Your task to perform on an android device: turn notification dots on Image 0: 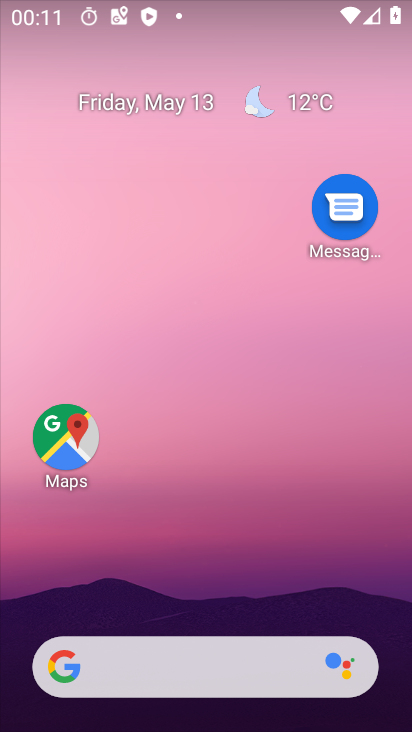
Step 0: drag from (302, 532) to (320, 4)
Your task to perform on an android device: turn notification dots on Image 1: 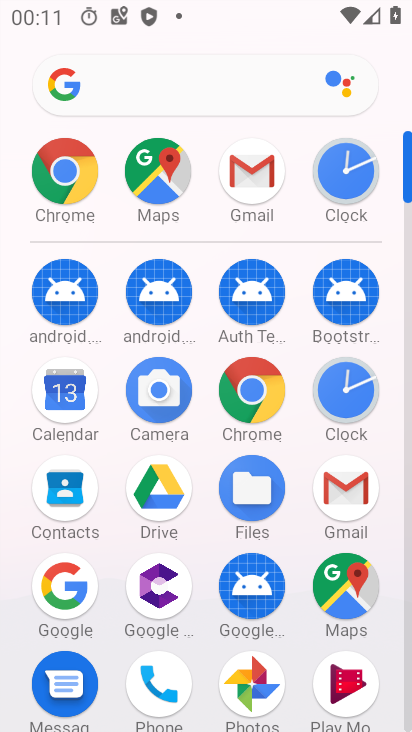
Step 1: click (410, 719)
Your task to perform on an android device: turn notification dots on Image 2: 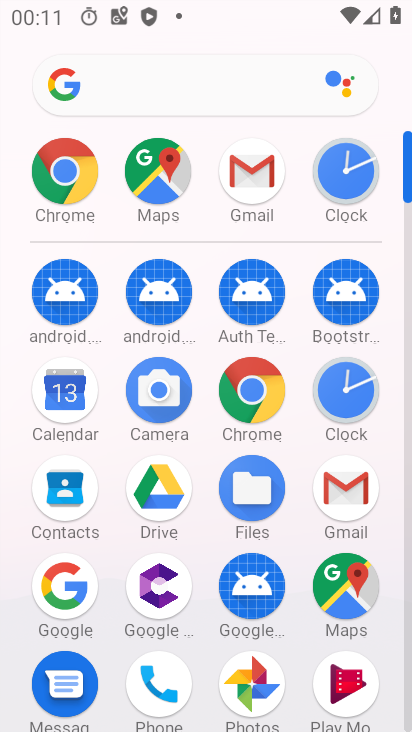
Step 2: click (410, 719)
Your task to perform on an android device: turn notification dots on Image 3: 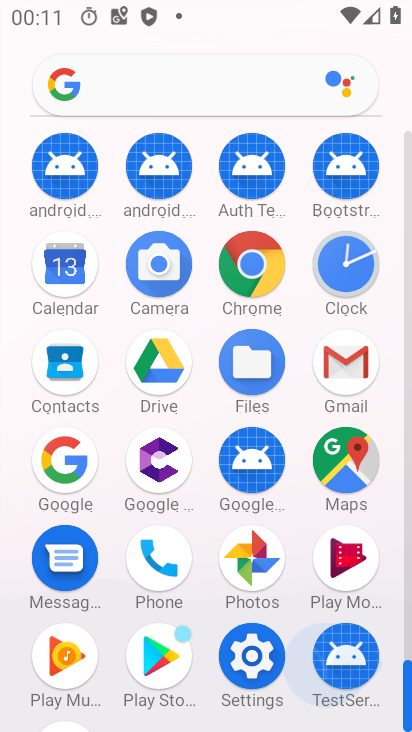
Step 3: click (410, 719)
Your task to perform on an android device: turn notification dots on Image 4: 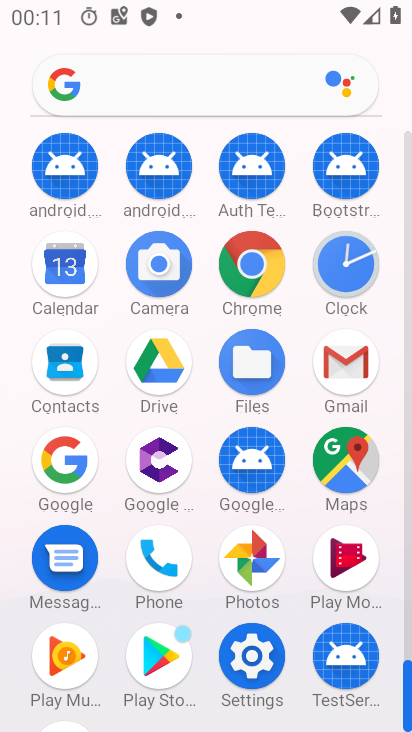
Step 4: click (410, 719)
Your task to perform on an android device: turn notification dots on Image 5: 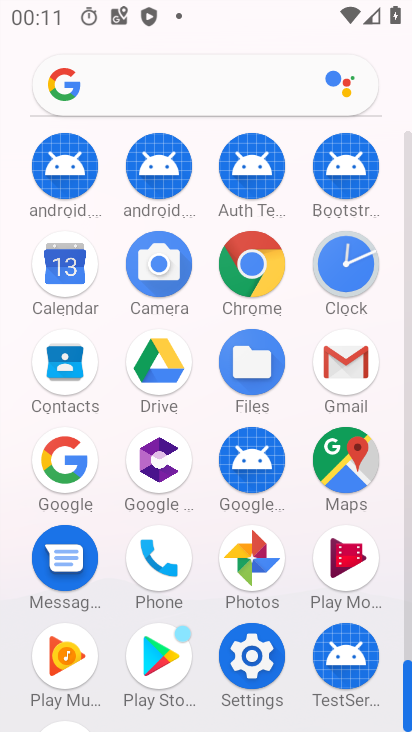
Step 5: click (248, 667)
Your task to perform on an android device: turn notification dots on Image 6: 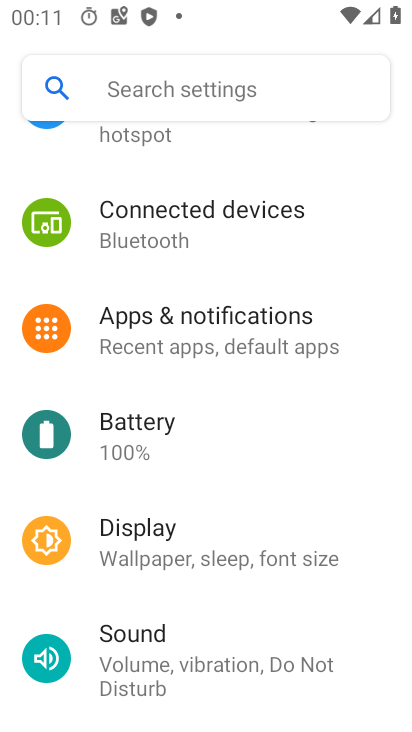
Step 6: click (174, 313)
Your task to perform on an android device: turn notification dots on Image 7: 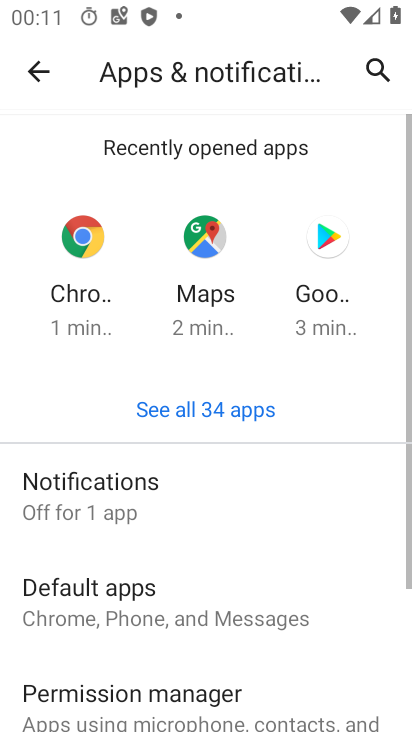
Step 7: click (174, 483)
Your task to perform on an android device: turn notification dots on Image 8: 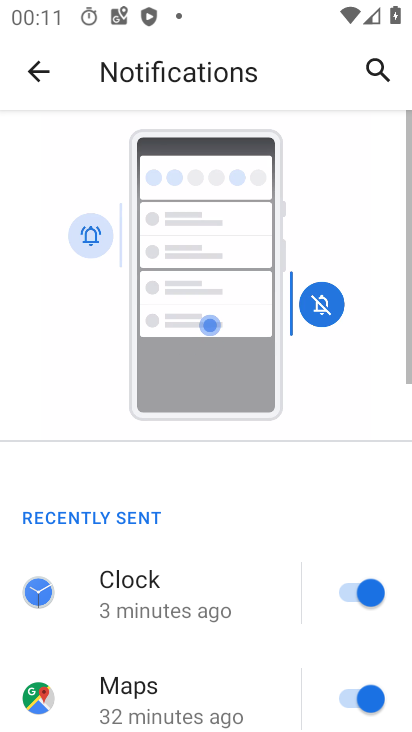
Step 8: drag from (178, 595) to (174, 480)
Your task to perform on an android device: turn notification dots on Image 9: 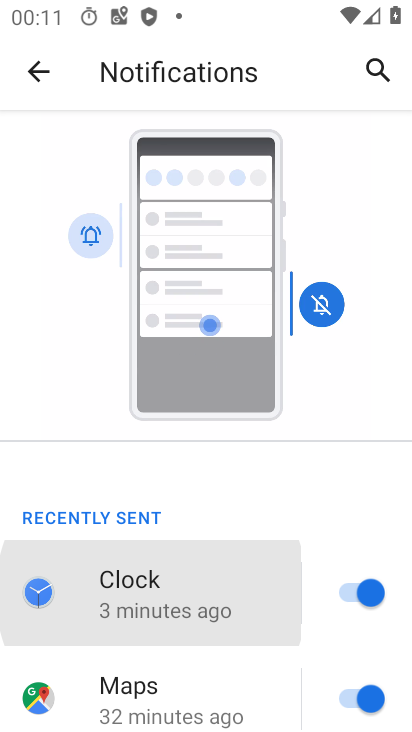
Step 9: drag from (174, 480) to (178, 400)
Your task to perform on an android device: turn notification dots on Image 10: 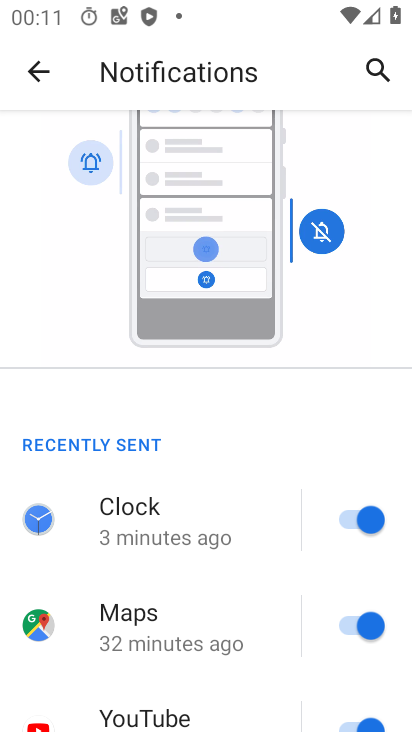
Step 10: drag from (177, 399) to (185, 237)
Your task to perform on an android device: turn notification dots on Image 11: 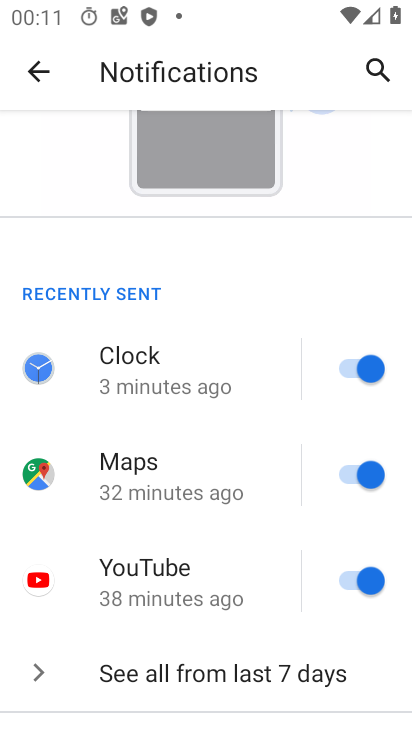
Step 11: drag from (177, 267) to (184, 173)
Your task to perform on an android device: turn notification dots on Image 12: 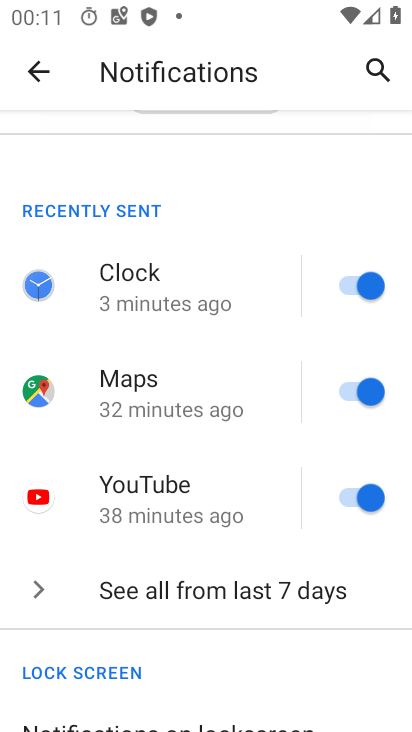
Step 12: click (184, 173)
Your task to perform on an android device: turn notification dots on Image 13: 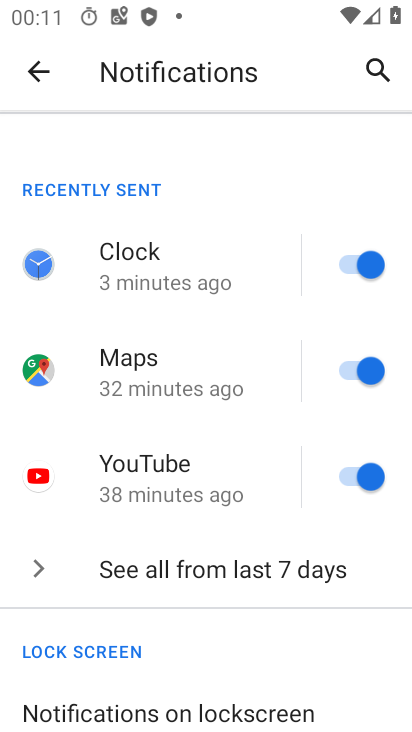
Step 13: drag from (134, 566) to (146, 414)
Your task to perform on an android device: turn notification dots on Image 14: 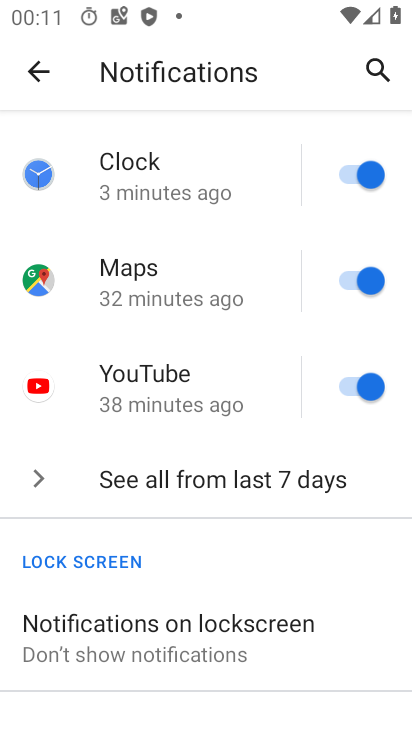
Step 14: drag from (136, 672) to (139, 356)
Your task to perform on an android device: turn notification dots on Image 15: 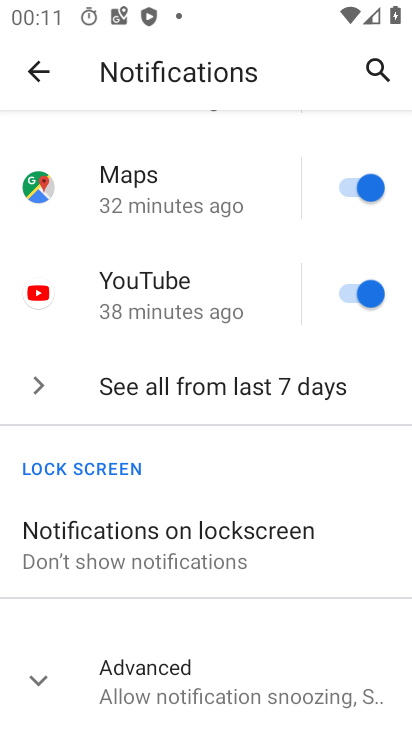
Step 15: click (122, 674)
Your task to perform on an android device: turn notification dots on Image 16: 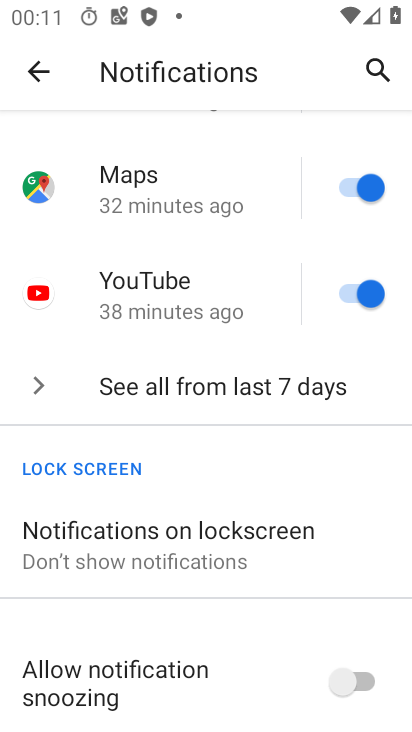
Step 16: task complete